Your task to perform on an android device: View the shopping cart on target.com. Image 0: 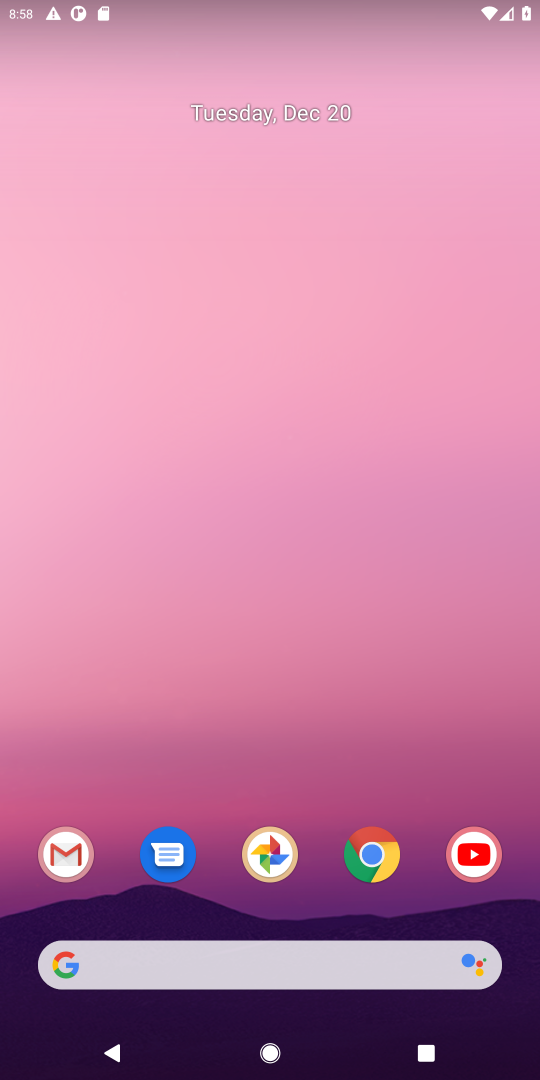
Step 0: click (377, 855)
Your task to perform on an android device: View the shopping cart on target.com. Image 1: 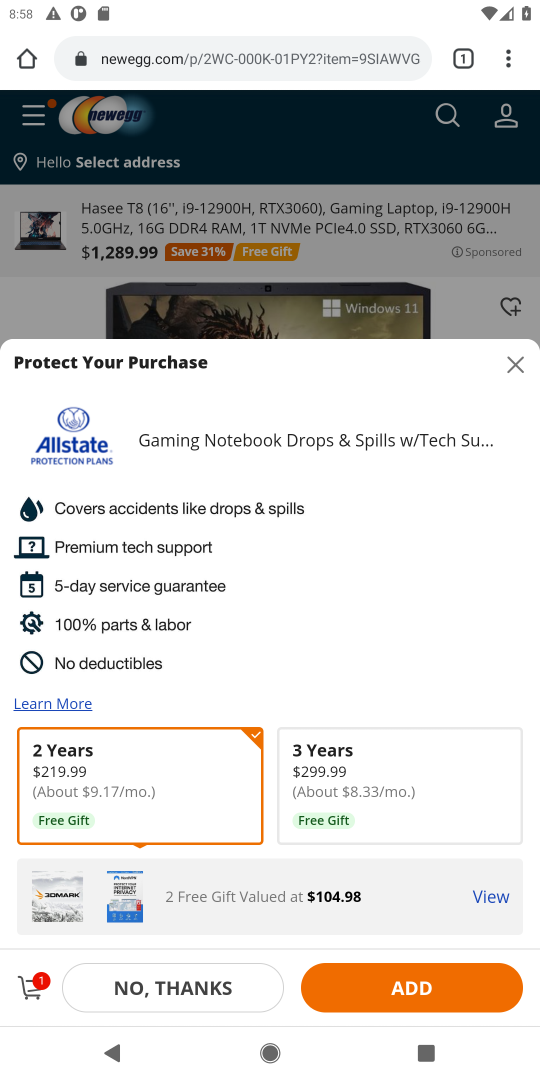
Step 1: click (220, 66)
Your task to perform on an android device: View the shopping cart on target.com. Image 2: 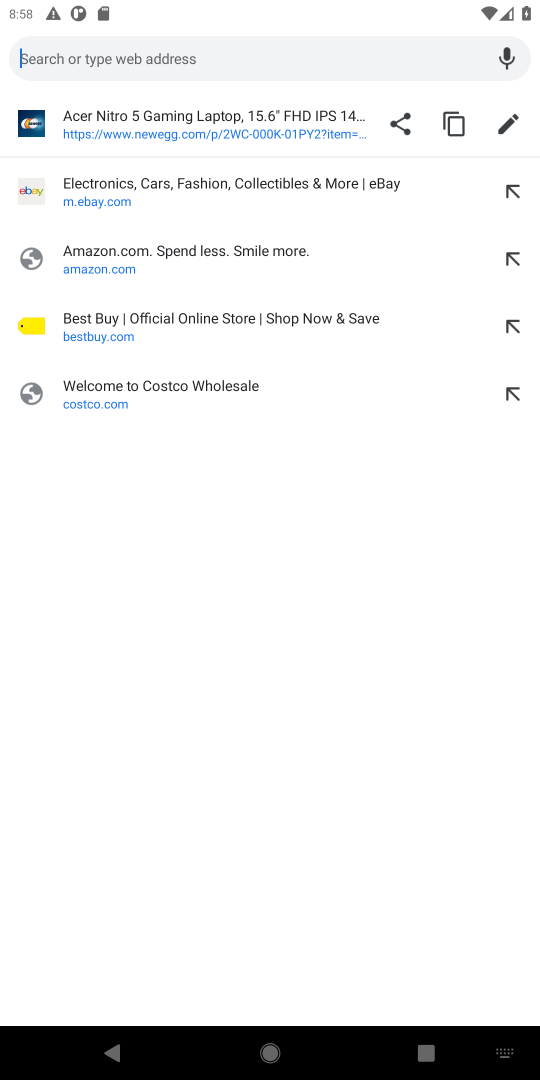
Step 2: type "target.com"
Your task to perform on an android device: View the shopping cart on target.com. Image 3: 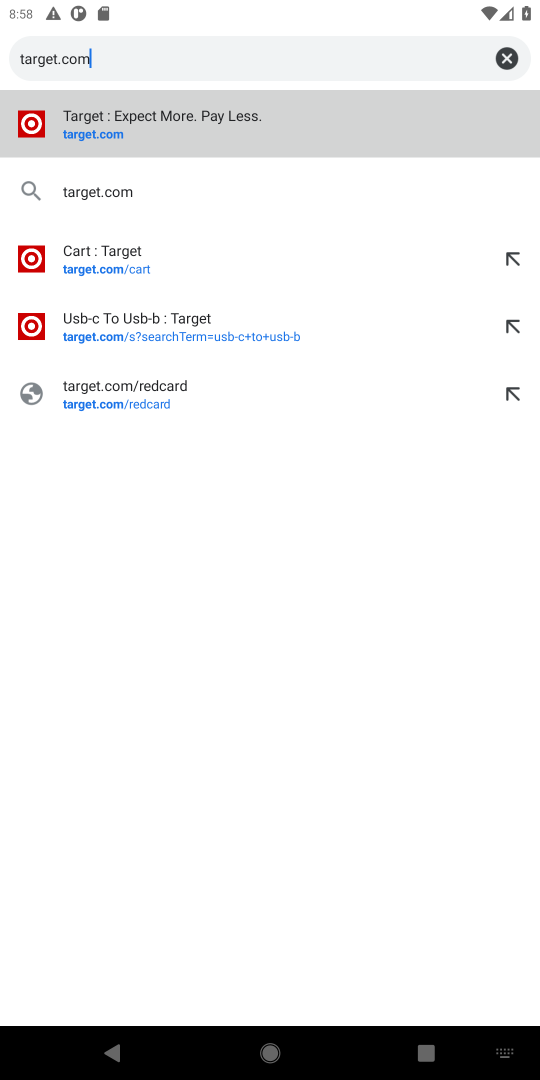
Step 3: click (80, 135)
Your task to perform on an android device: View the shopping cart on target.com. Image 4: 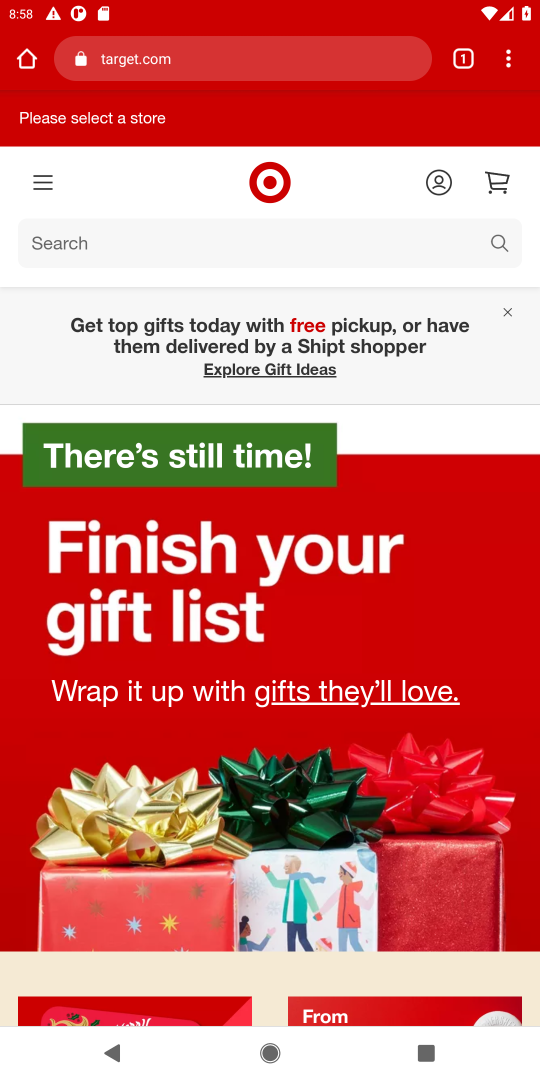
Step 4: click (501, 181)
Your task to perform on an android device: View the shopping cart on target.com. Image 5: 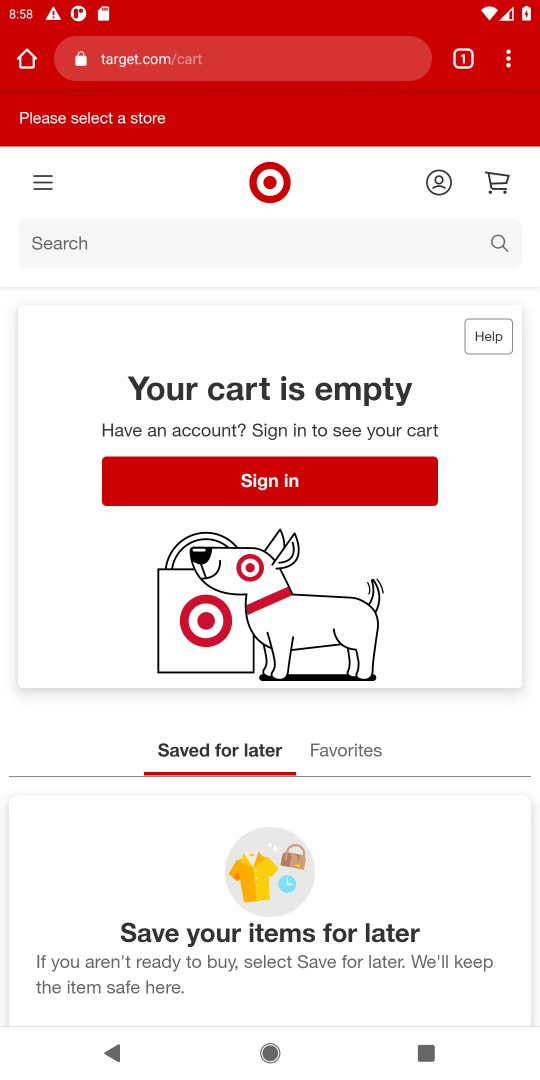
Step 5: task complete